Your task to perform on an android device: Do I have any events tomorrow? Image 0: 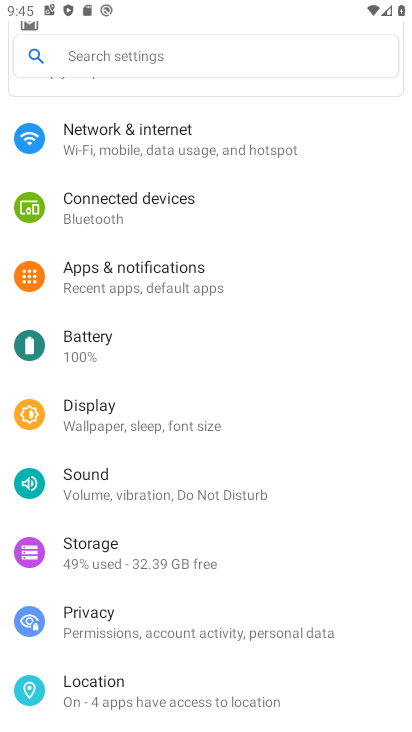
Step 0: press home button
Your task to perform on an android device: Do I have any events tomorrow? Image 1: 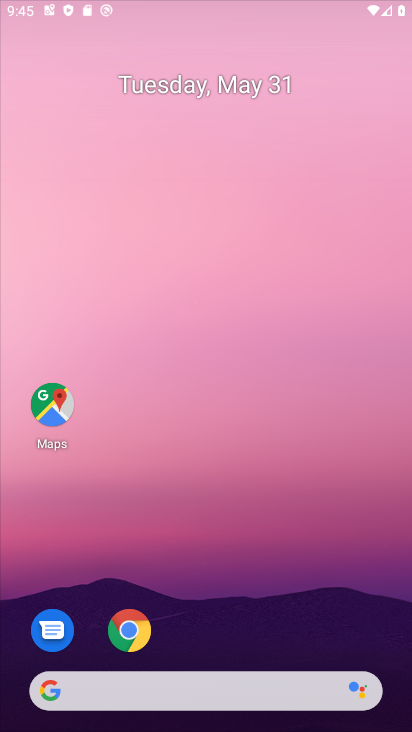
Step 1: drag from (187, 640) to (274, 104)
Your task to perform on an android device: Do I have any events tomorrow? Image 2: 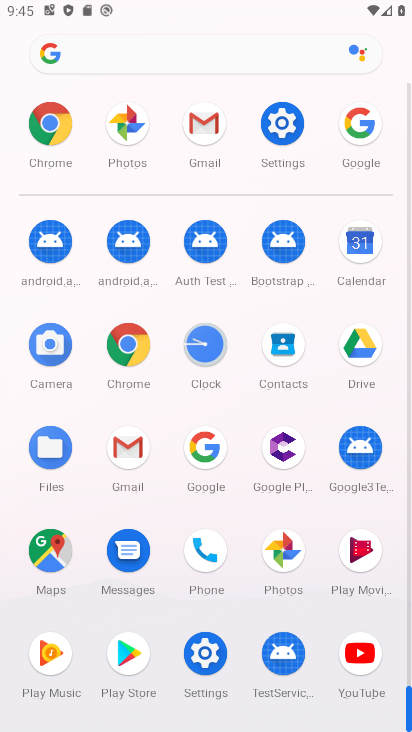
Step 2: drag from (219, 557) to (220, 389)
Your task to perform on an android device: Do I have any events tomorrow? Image 3: 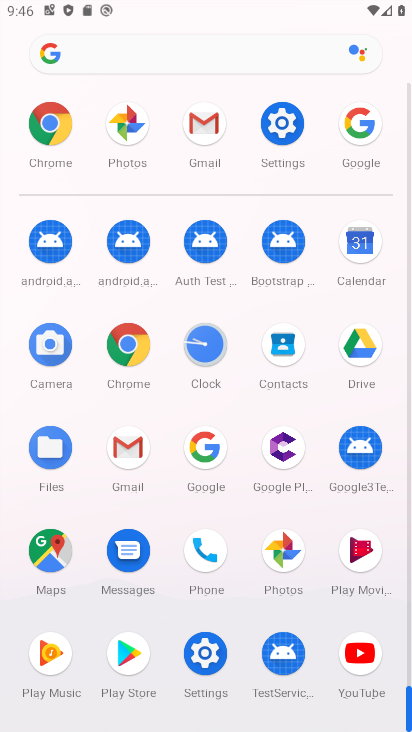
Step 3: click (207, 461)
Your task to perform on an android device: Do I have any events tomorrow? Image 4: 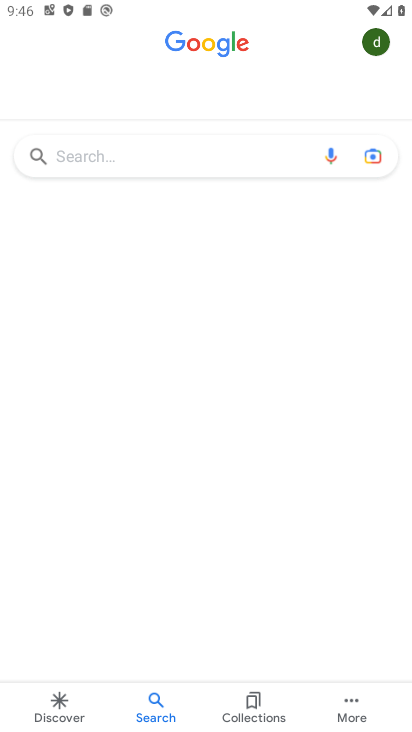
Step 4: press home button
Your task to perform on an android device: Do I have any events tomorrow? Image 5: 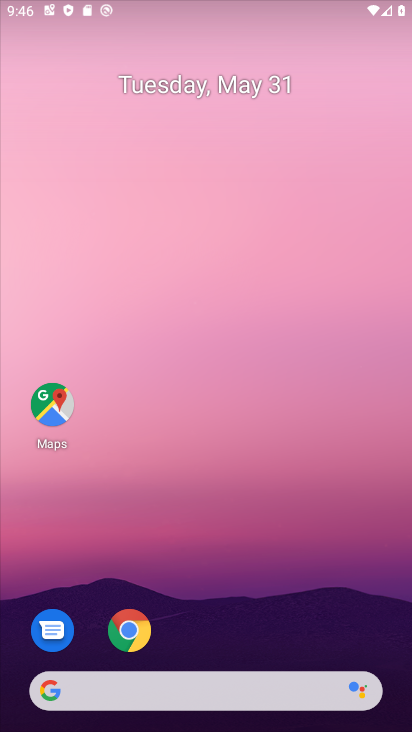
Step 5: drag from (192, 662) to (192, 376)
Your task to perform on an android device: Do I have any events tomorrow? Image 6: 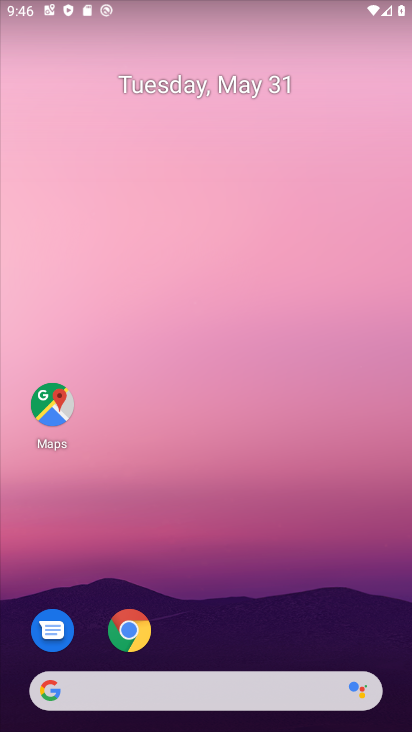
Step 6: drag from (222, 598) to (230, 150)
Your task to perform on an android device: Do I have any events tomorrow? Image 7: 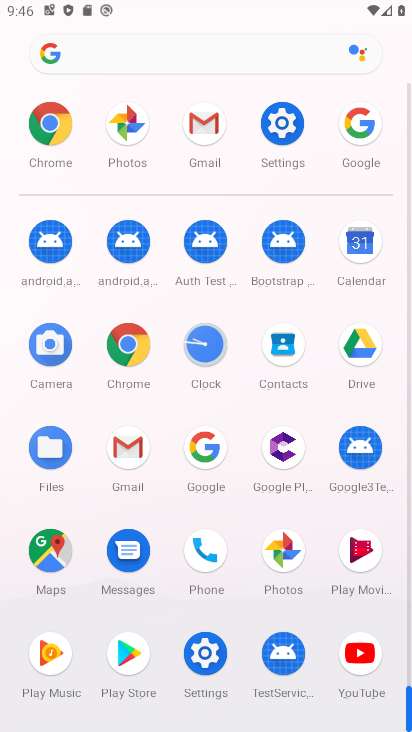
Step 7: drag from (172, 494) to (185, 258)
Your task to perform on an android device: Do I have any events tomorrow? Image 8: 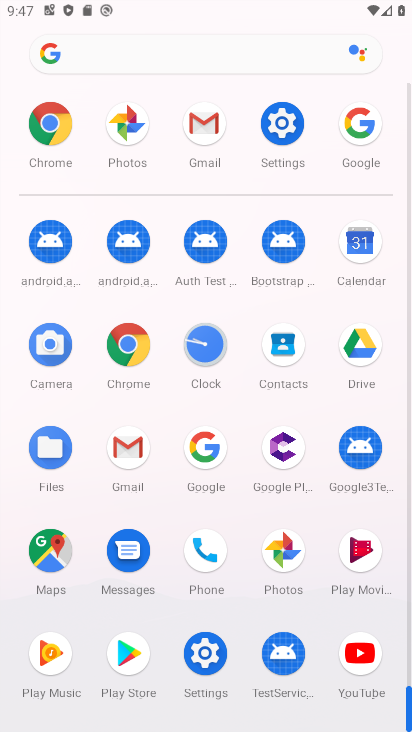
Step 8: click (365, 257)
Your task to perform on an android device: Do I have any events tomorrow? Image 9: 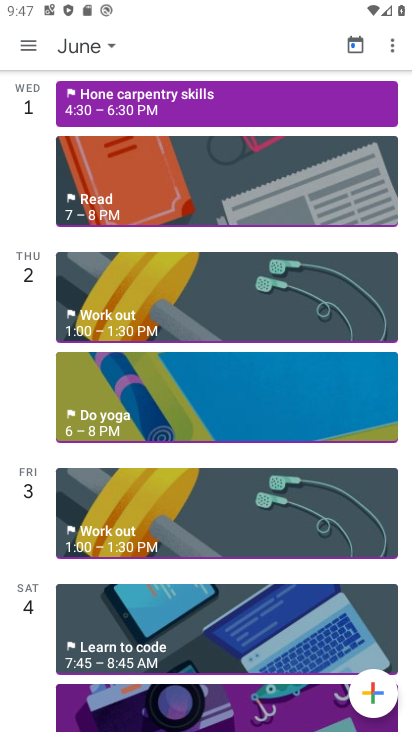
Step 9: task complete